Your task to perform on an android device: Open calendar and show me the first week of next month Image 0: 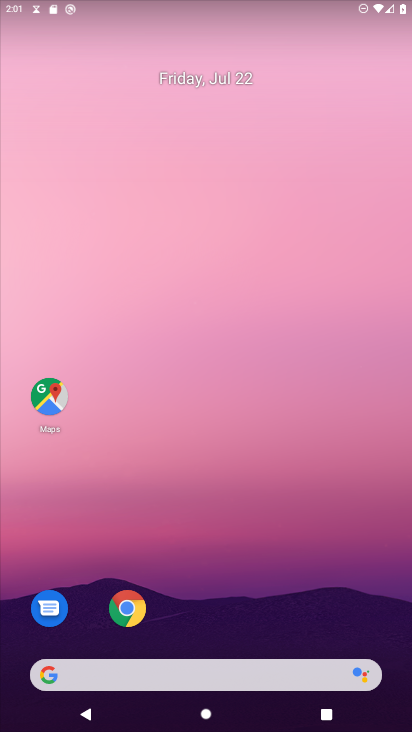
Step 0: drag from (242, 594) to (251, 133)
Your task to perform on an android device: Open calendar and show me the first week of next month Image 1: 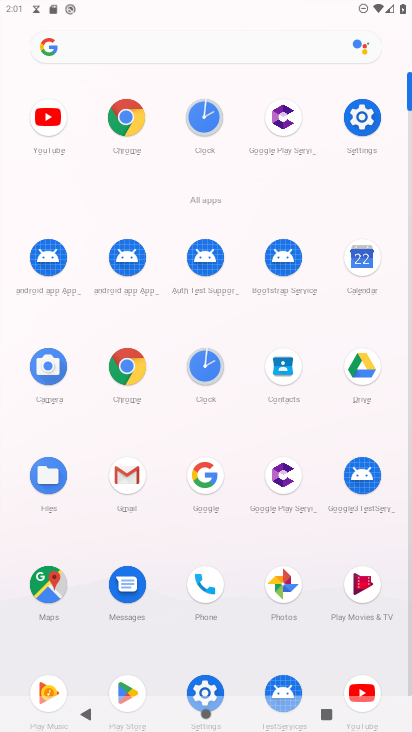
Step 1: click (357, 246)
Your task to perform on an android device: Open calendar and show me the first week of next month Image 2: 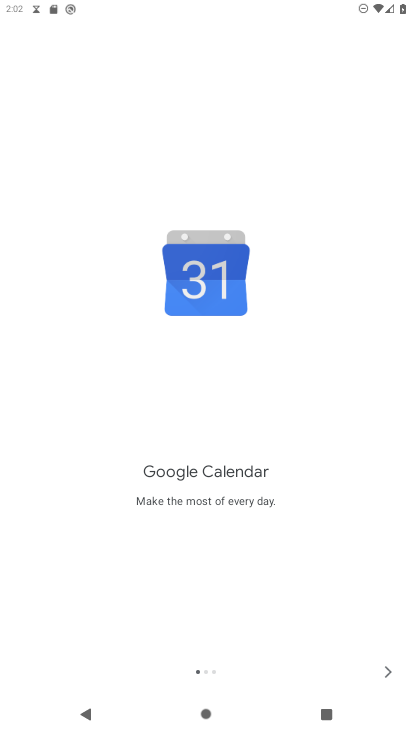
Step 2: click (387, 672)
Your task to perform on an android device: Open calendar and show me the first week of next month Image 3: 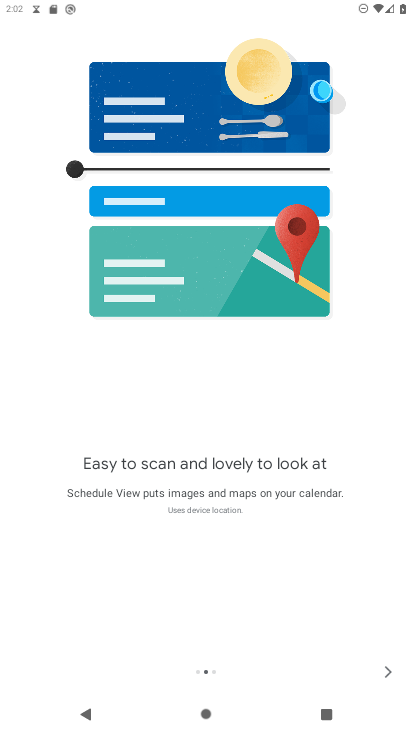
Step 3: click (387, 672)
Your task to perform on an android device: Open calendar and show me the first week of next month Image 4: 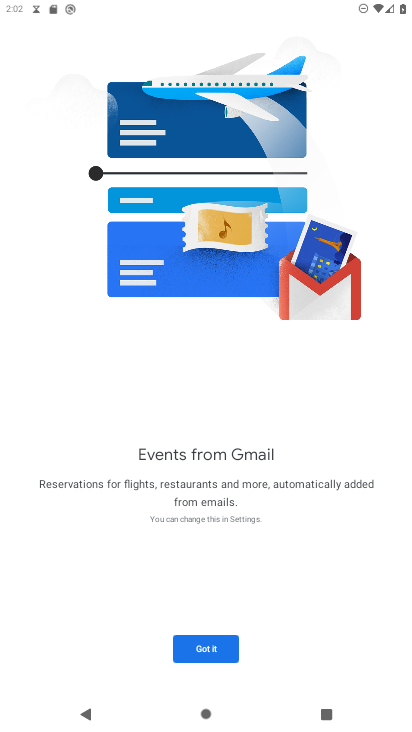
Step 4: click (211, 653)
Your task to perform on an android device: Open calendar and show me the first week of next month Image 5: 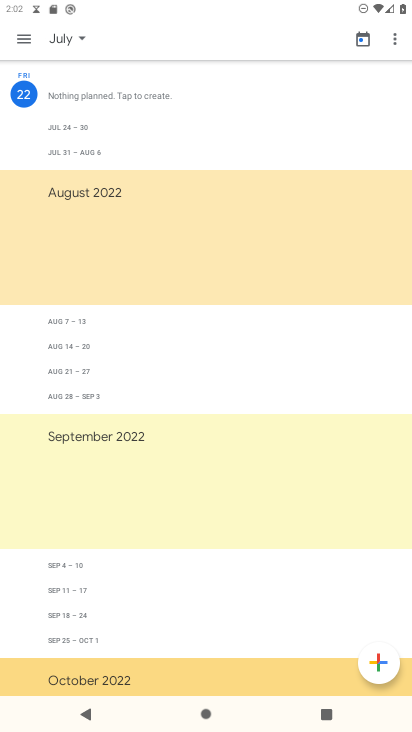
Step 5: click (64, 39)
Your task to perform on an android device: Open calendar and show me the first week of next month Image 6: 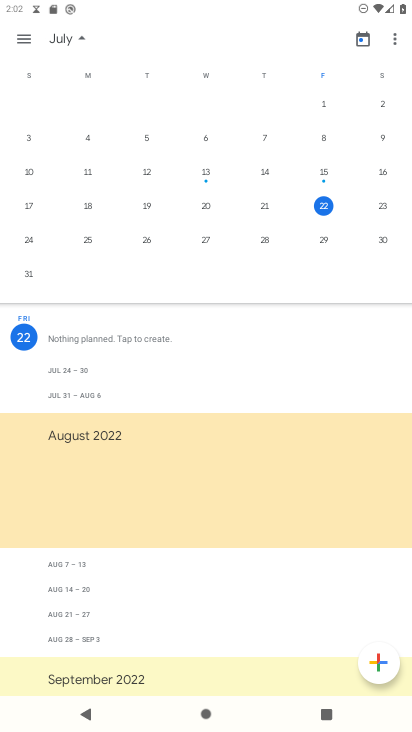
Step 6: task complete